Your task to perform on an android device: change notification settings in the gmail app Image 0: 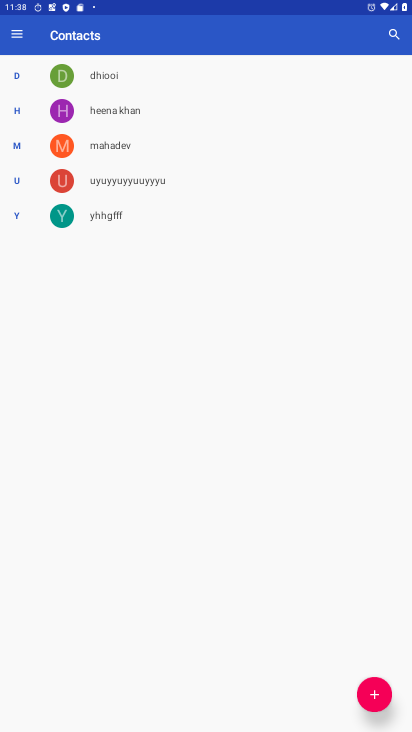
Step 0: press home button
Your task to perform on an android device: change notification settings in the gmail app Image 1: 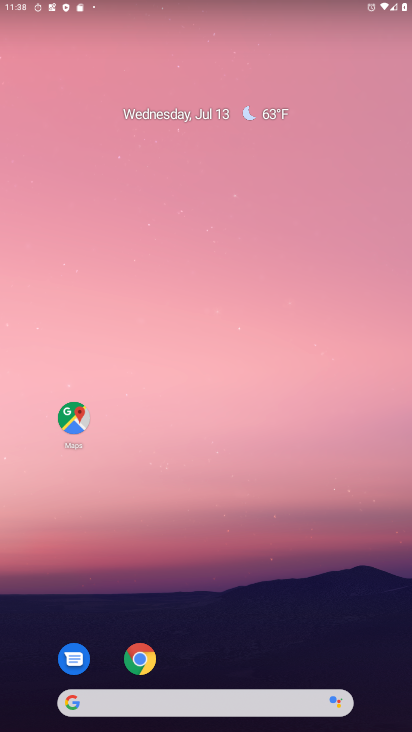
Step 1: drag from (280, 606) to (221, 56)
Your task to perform on an android device: change notification settings in the gmail app Image 2: 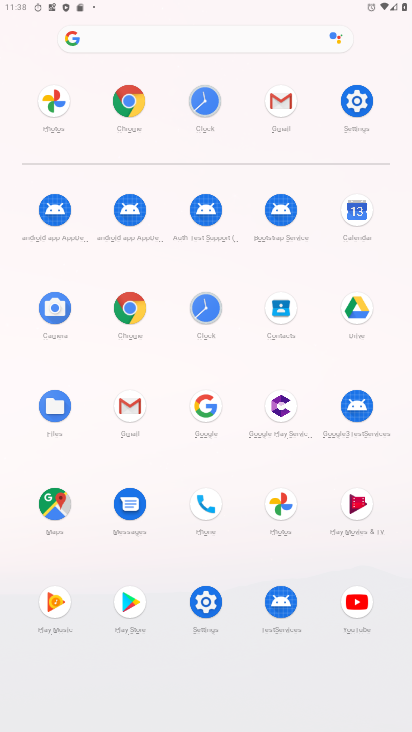
Step 2: click (275, 104)
Your task to perform on an android device: change notification settings in the gmail app Image 3: 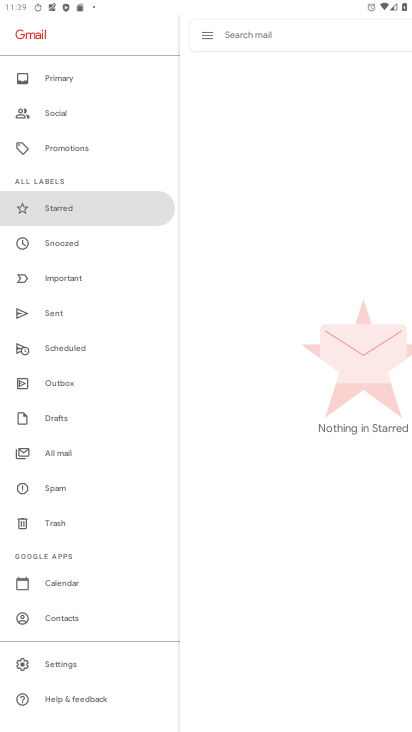
Step 3: click (67, 657)
Your task to perform on an android device: change notification settings in the gmail app Image 4: 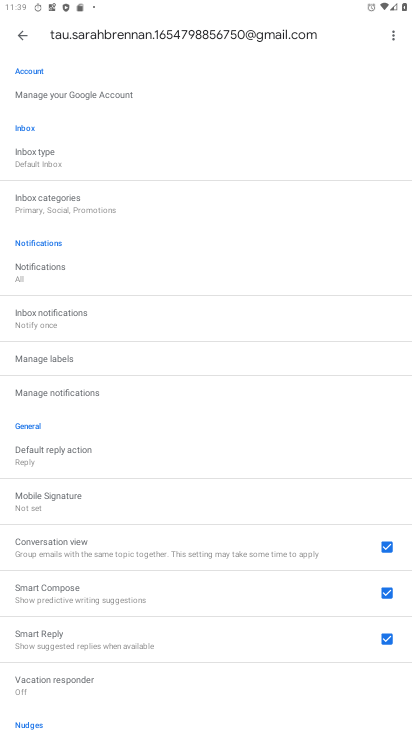
Step 4: click (56, 393)
Your task to perform on an android device: change notification settings in the gmail app Image 5: 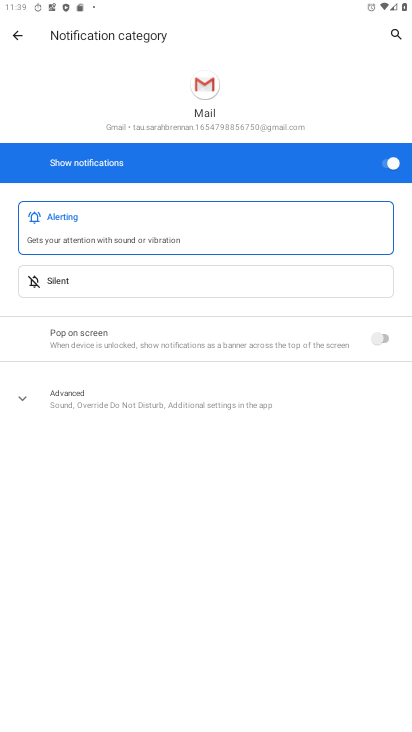
Step 5: click (381, 160)
Your task to perform on an android device: change notification settings in the gmail app Image 6: 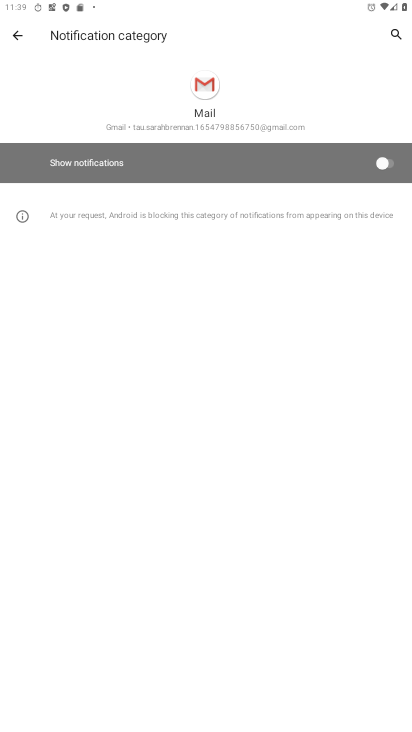
Step 6: task complete